Your task to perform on an android device: toggle show notifications on the lock screen Image 0: 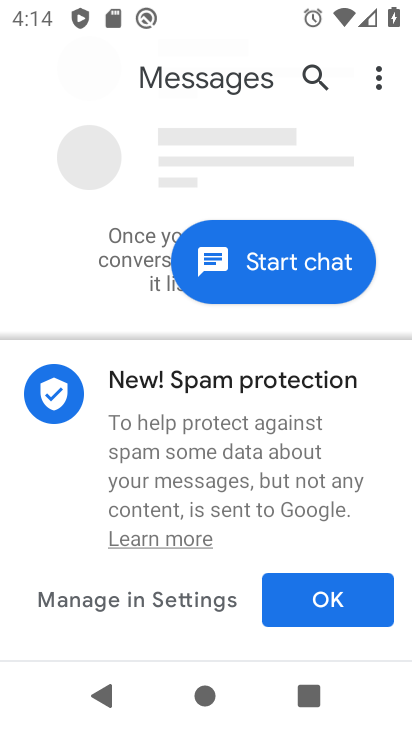
Step 0: press home button
Your task to perform on an android device: toggle show notifications on the lock screen Image 1: 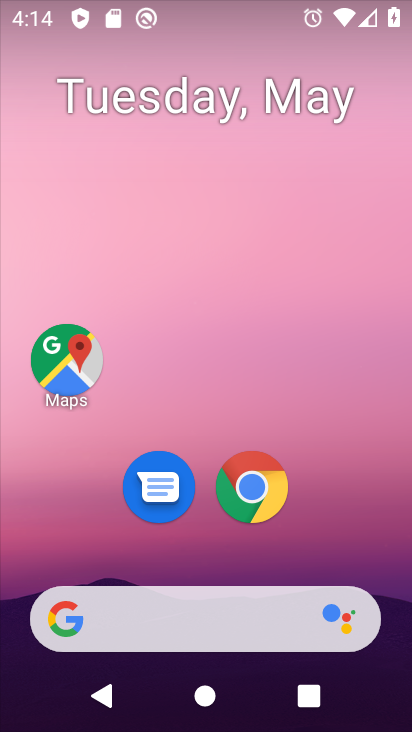
Step 1: drag from (378, 519) to (299, 106)
Your task to perform on an android device: toggle show notifications on the lock screen Image 2: 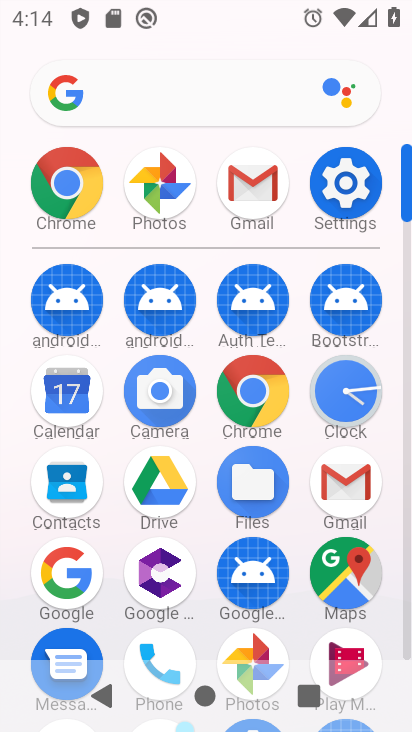
Step 2: click (344, 183)
Your task to perform on an android device: toggle show notifications on the lock screen Image 3: 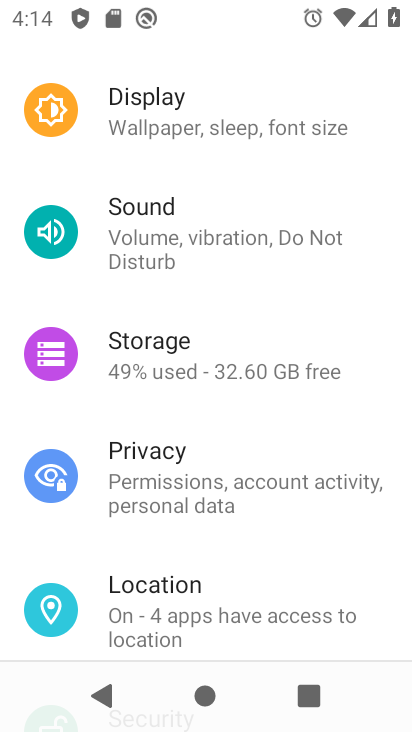
Step 3: drag from (279, 557) to (292, 730)
Your task to perform on an android device: toggle show notifications on the lock screen Image 4: 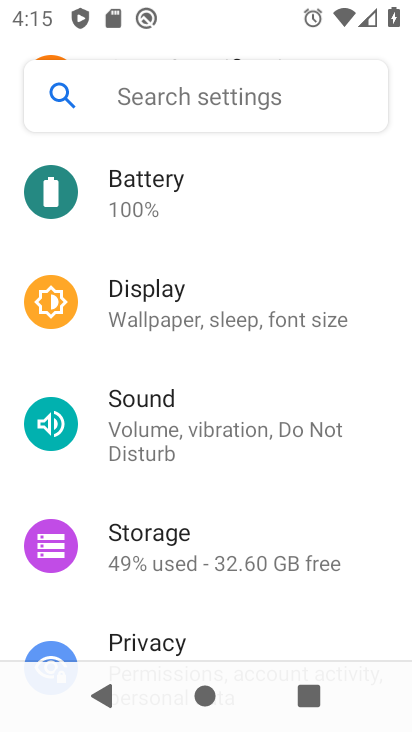
Step 4: drag from (244, 252) to (245, 634)
Your task to perform on an android device: toggle show notifications on the lock screen Image 5: 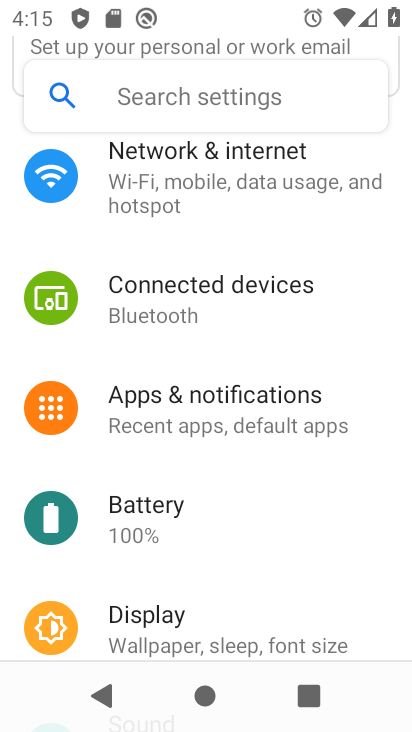
Step 5: click (238, 411)
Your task to perform on an android device: toggle show notifications on the lock screen Image 6: 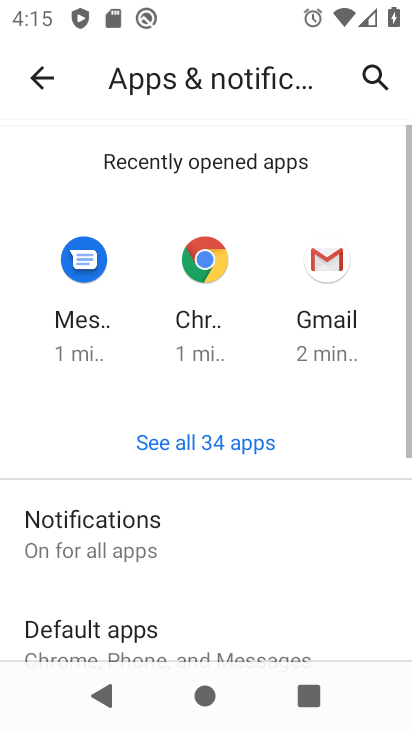
Step 6: click (150, 539)
Your task to perform on an android device: toggle show notifications on the lock screen Image 7: 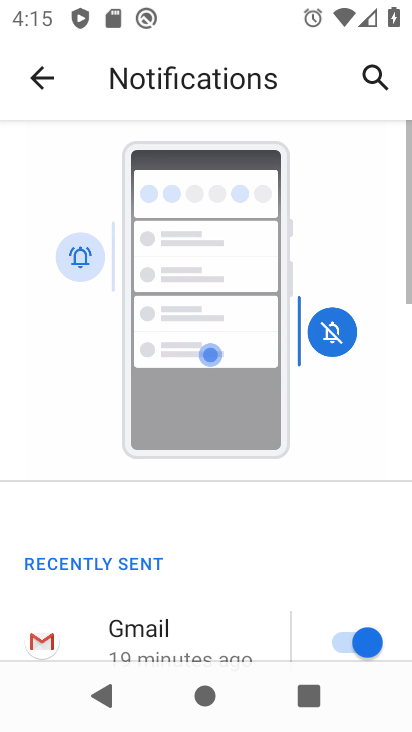
Step 7: drag from (249, 520) to (278, 29)
Your task to perform on an android device: toggle show notifications on the lock screen Image 8: 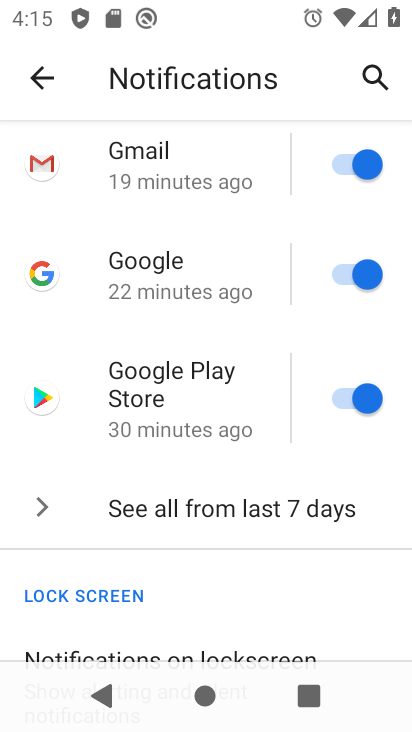
Step 8: drag from (194, 596) to (193, 220)
Your task to perform on an android device: toggle show notifications on the lock screen Image 9: 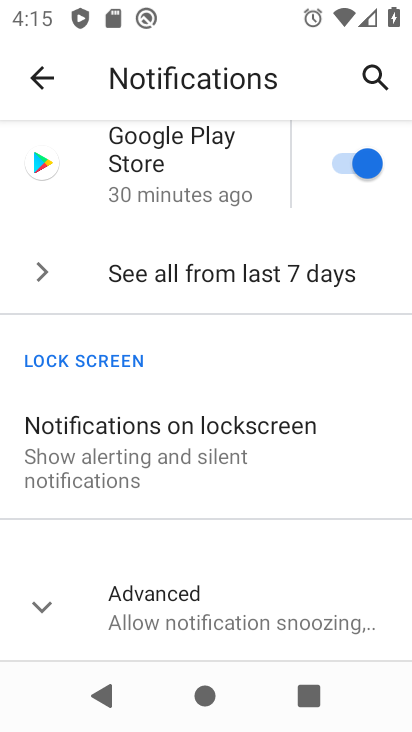
Step 9: click (176, 455)
Your task to perform on an android device: toggle show notifications on the lock screen Image 10: 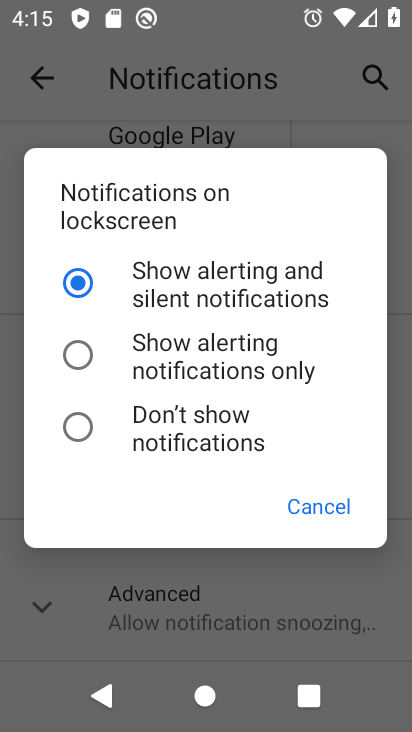
Step 10: click (217, 366)
Your task to perform on an android device: toggle show notifications on the lock screen Image 11: 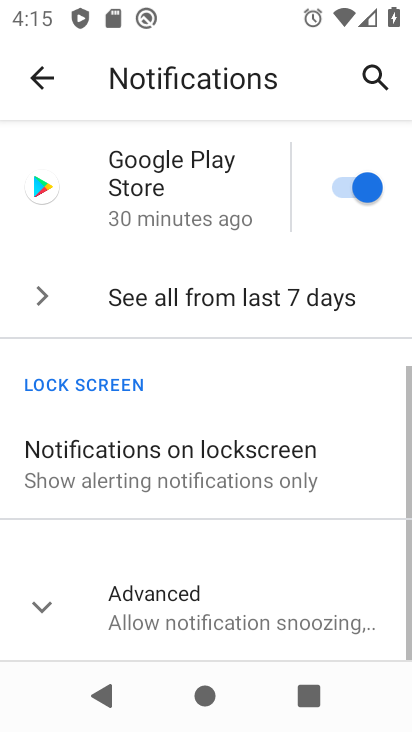
Step 11: task complete